Your task to perform on an android device: turn off improve location accuracy Image 0: 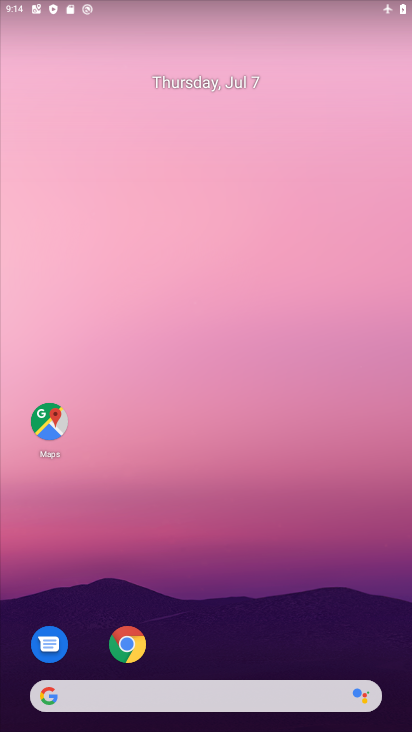
Step 0: drag from (245, 551) to (204, 4)
Your task to perform on an android device: turn off improve location accuracy Image 1: 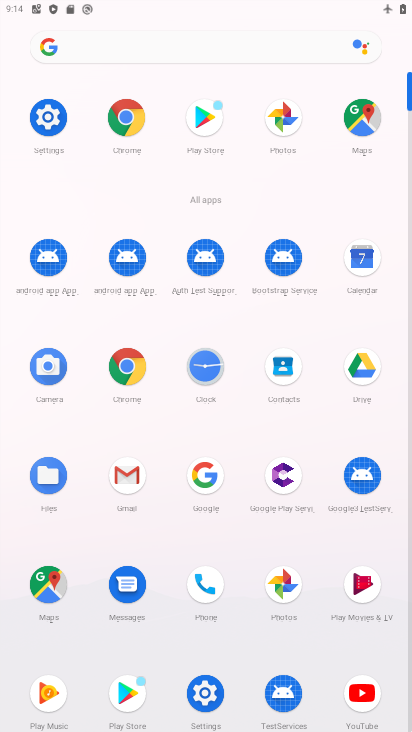
Step 1: click (53, 113)
Your task to perform on an android device: turn off improve location accuracy Image 2: 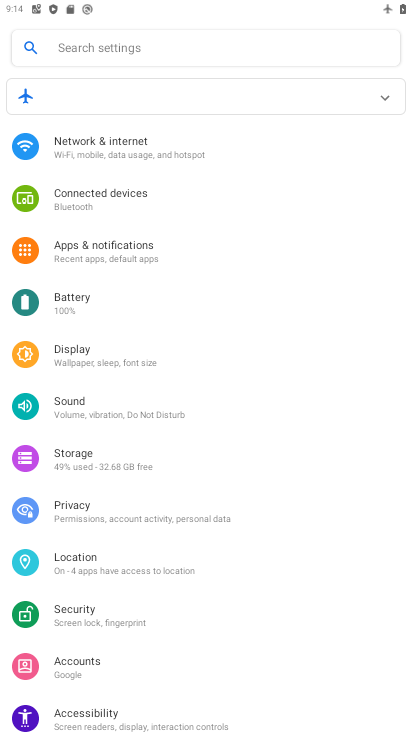
Step 2: click (103, 573)
Your task to perform on an android device: turn off improve location accuracy Image 3: 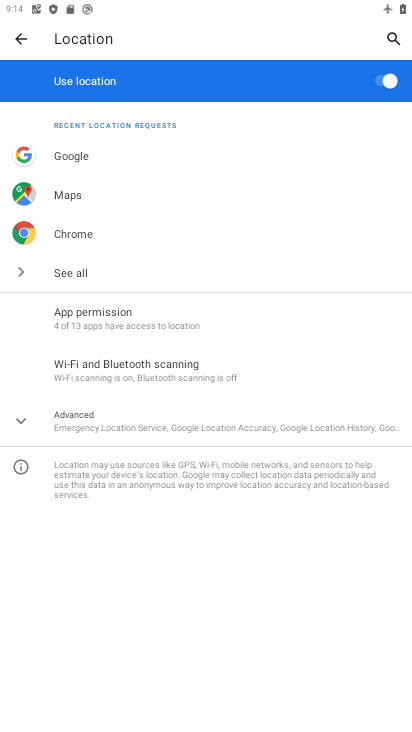
Step 3: click (108, 422)
Your task to perform on an android device: turn off improve location accuracy Image 4: 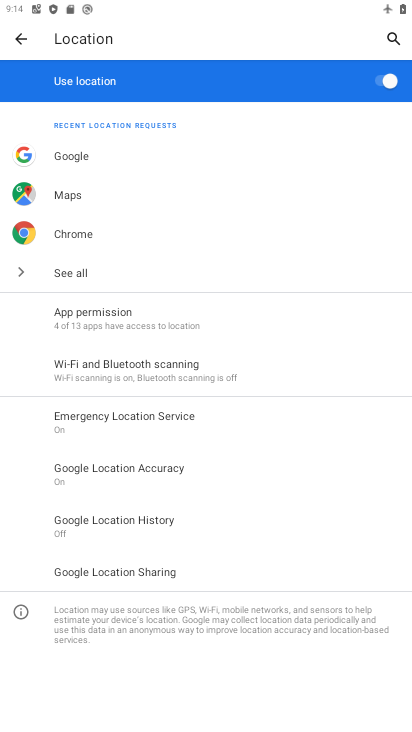
Step 4: click (128, 462)
Your task to perform on an android device: turn off improve location accuracy Image 5: 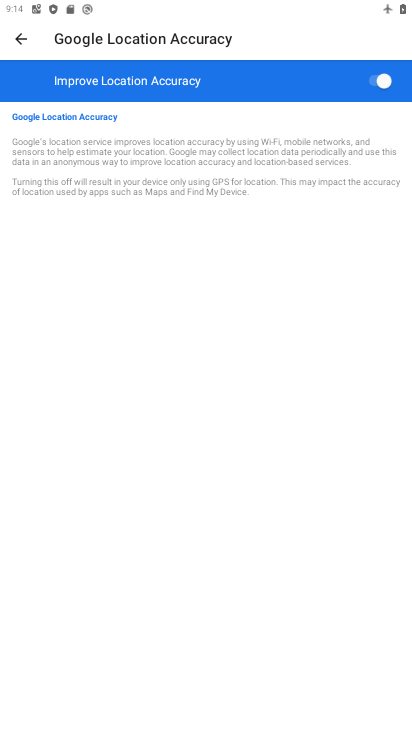
Step 5: click (367, 84)
Your task to perform on an android device: turn off improve location accuracy Image 6: 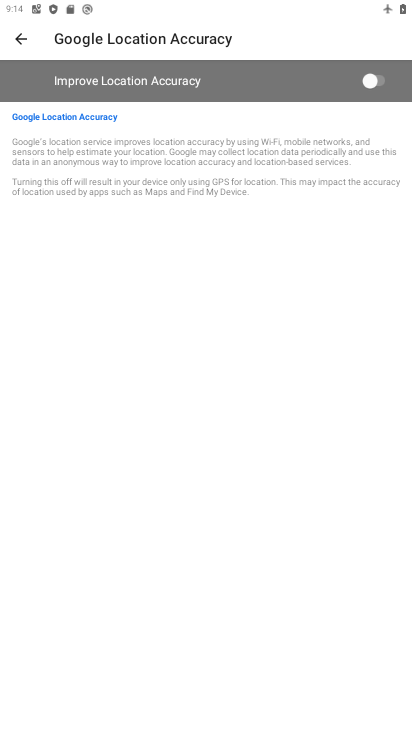
Step 6: task complete